Your task to perform on an android device: snooze an email in the gmail app Image 0: 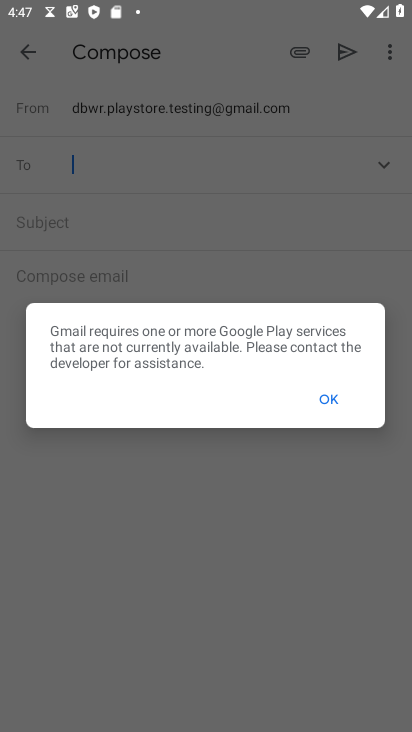
Step 0: press home button
Your task to perform on an android device: snooze an email in the gmail app Image 1: 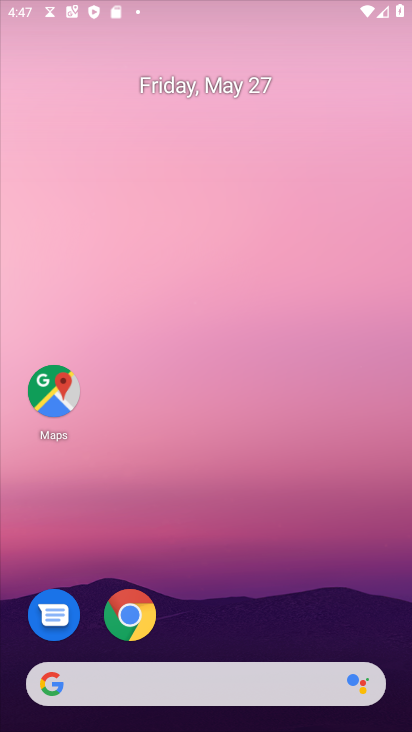
Step 1: drag from (321, 482) to (230, 20)
Your task to perform on an android device: snooze an email in the gmail app Image 2: 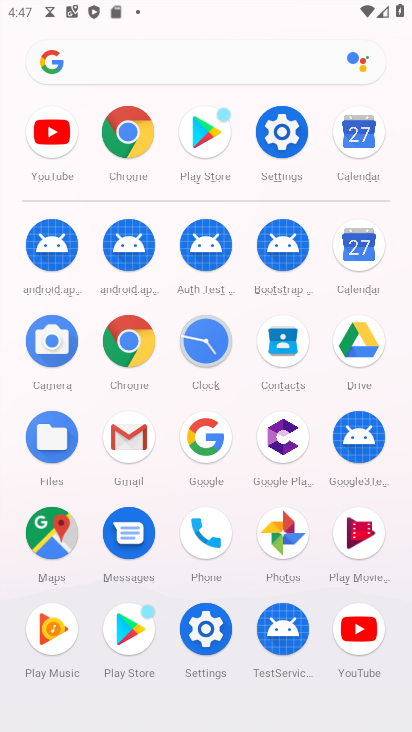
Step 2: click (109, 459)
Your task to perform on an android device: snooze an email in the gmail app Image 3: 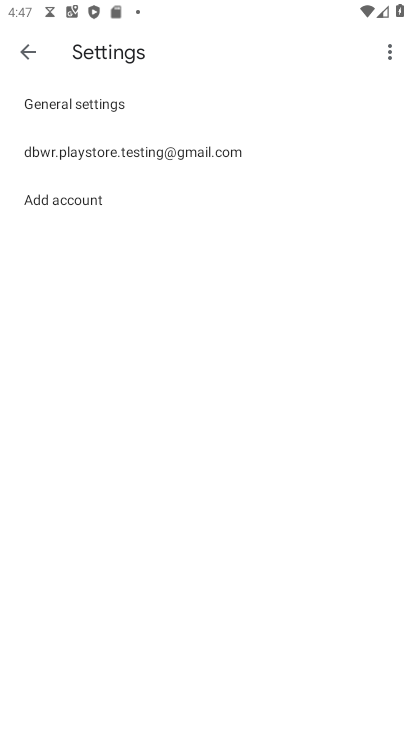
Step 3: click (24, 49)
Your task to perform on an android device: snooze an email in the gmail app Image 4: 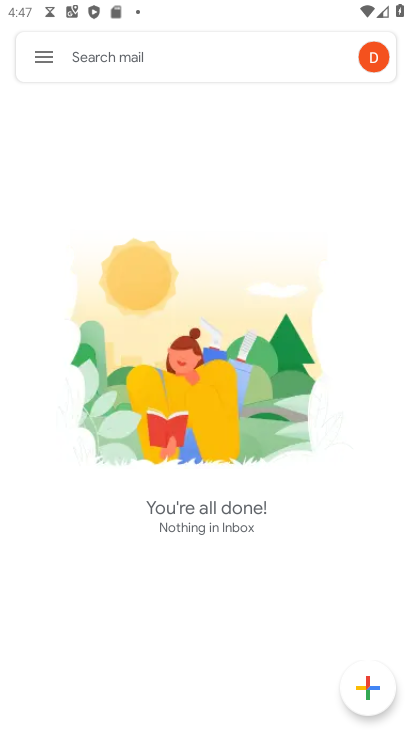
Step 4: click (47, 55)
Your task to perform on an android device: snooze an email in the gmail app Image 5: 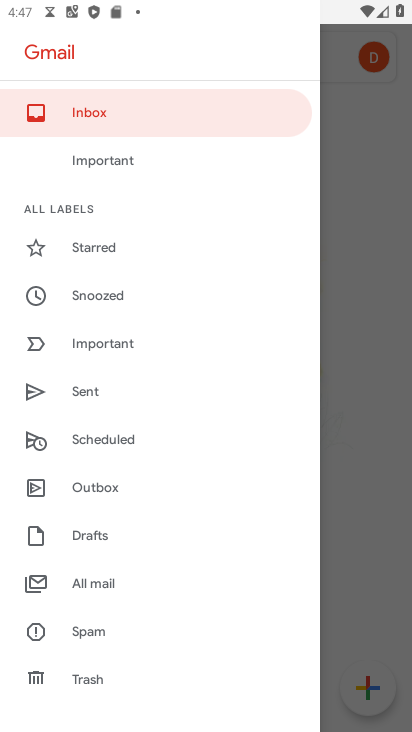
Step 5: click (121, 588)
Your task to perform on an android device: snooze an email in the gmail app Image 6: 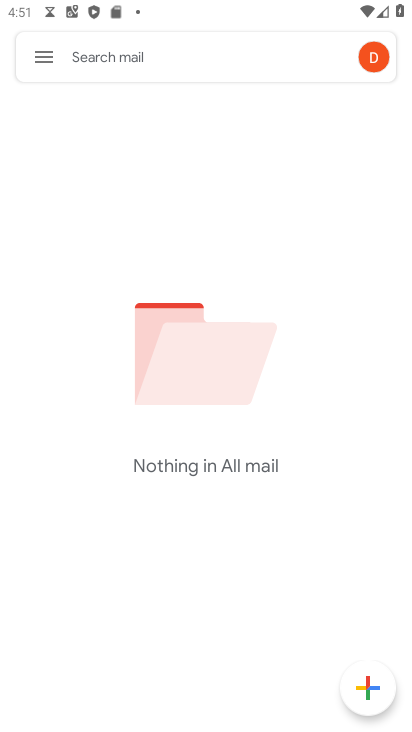
Step 6: task complete